Your task to perform on an android device: Open Reddit.com Image 0: 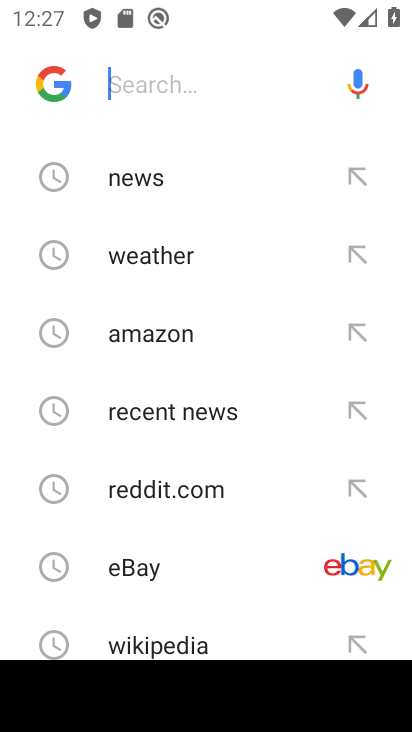
Step 0: press home button
Your task to perform on an android device: Open Reddit.com Image 1: 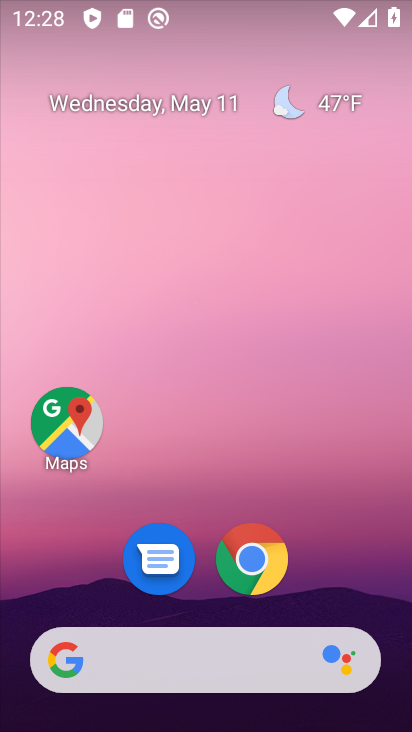
Step 1: click (266, 561)
Your task to perform on an android device: Open Reddit.com Image 2: 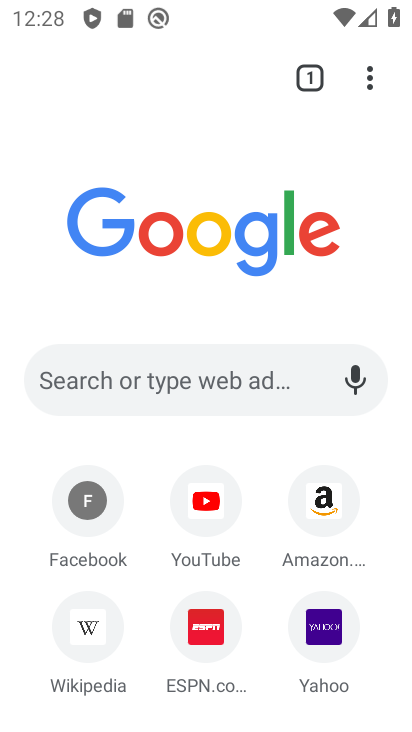
Step 2: click (216, 390)
Your task to perform on an android device: Open Reddit.com Image 3: 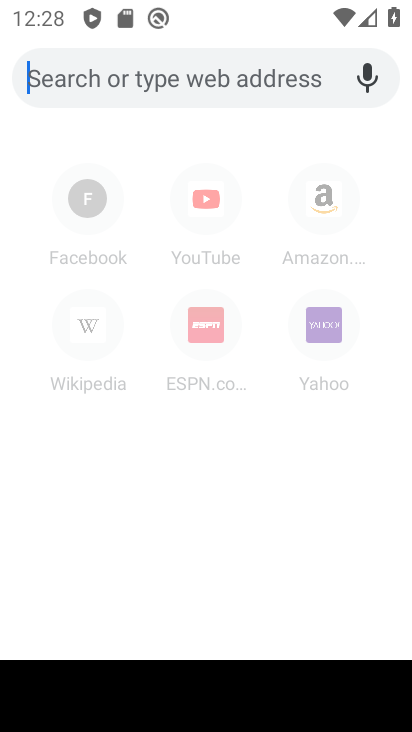
Step 3: type "reddit.com"
Your task to perform on an android device: Open Reddit.com Image 4: 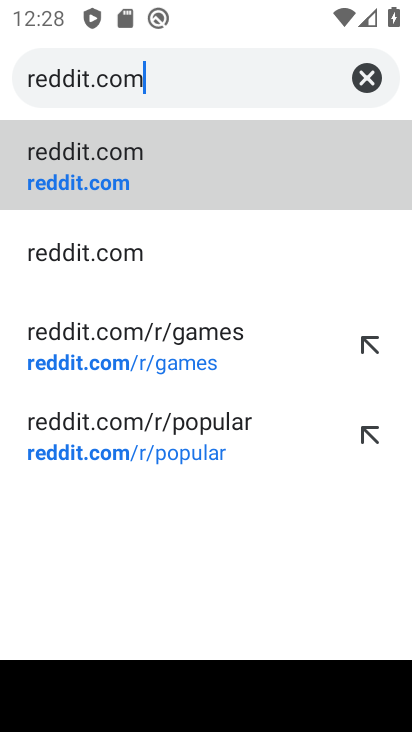
Step 4: click (154, 167)
Your task to perform on an android device: Open Reddit.com Image 5: 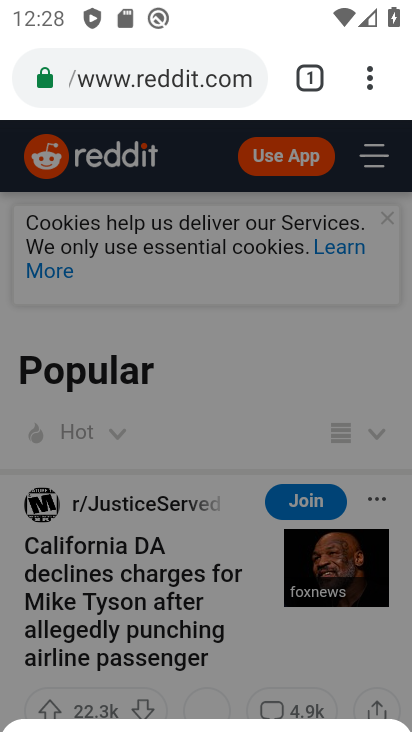
Step 5: task complete